Your task to perform on an android device: turn off notifications in google photos Image 0: 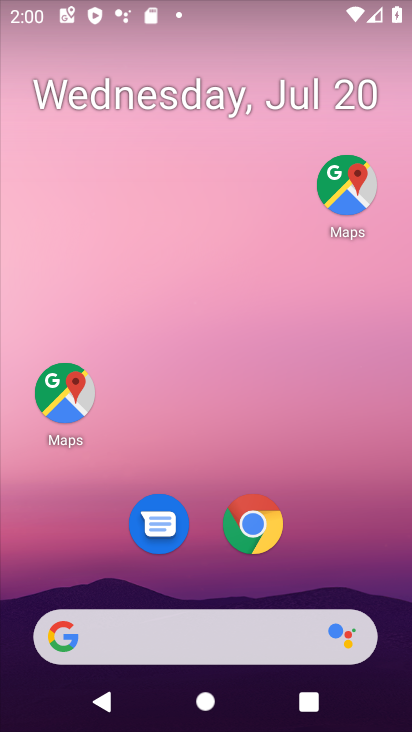
Step 0: drag from (328, 550) to (376, 57)
Your task to perform on an android device: turn off notifications in google photos Image 1: 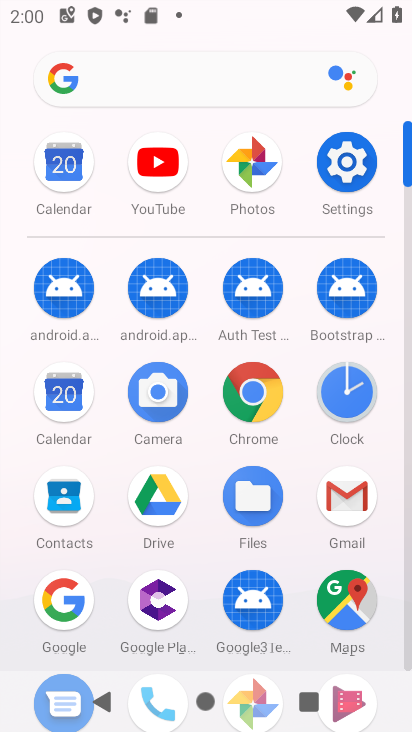
Step 1: click (258, 151)
Your task to perform on an android device: turn off notifications in google photos Image 2: 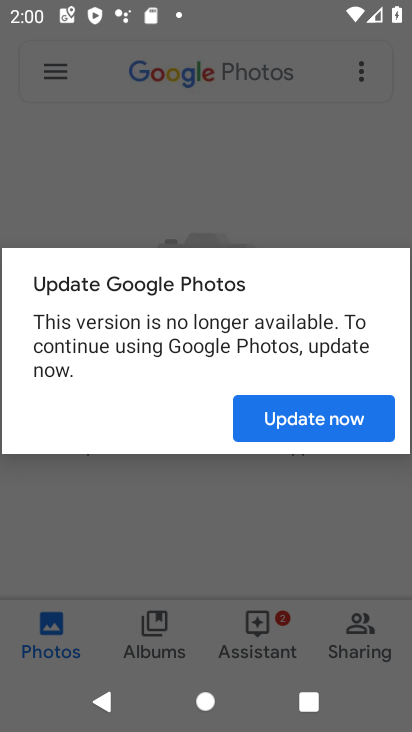
Step 2: click (302, 411)
Your task to perform on an android device: turn off notifications in google photos Image 3: 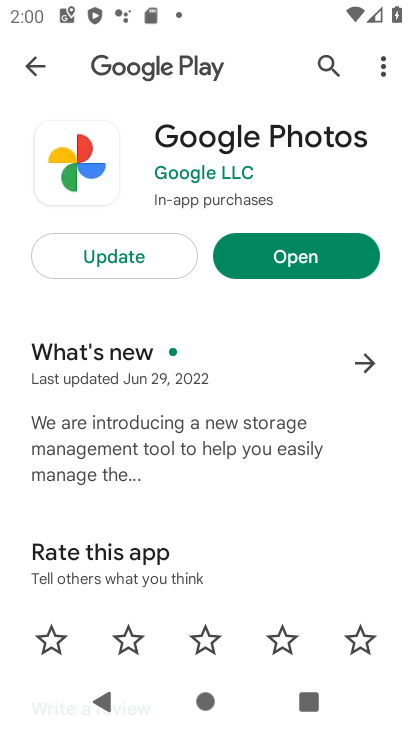
Step 3: click (316, 261)
Your task to perform on an android device: turn off notifications in google photos Image 4: 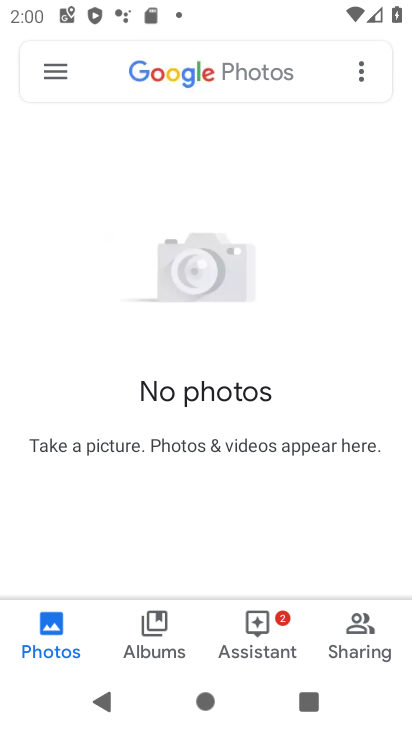
Step 4: click (55, 62)
Your task to perform on an android device: turn off notifications in google photos Image 5: 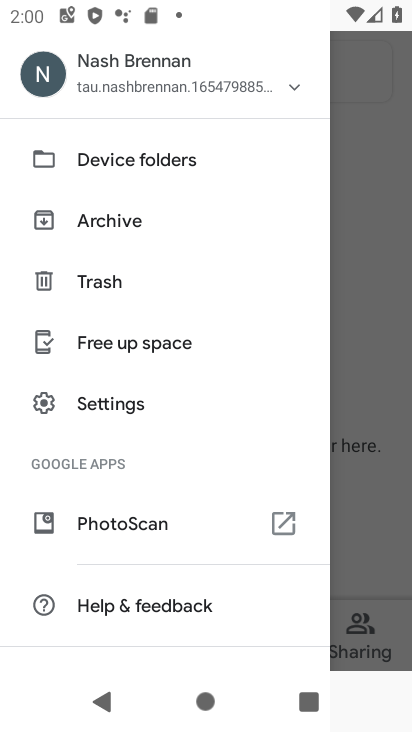
Step 5: click (129, 409)
Your task to perform on an android device: turn off notifications in google photos Image 6: 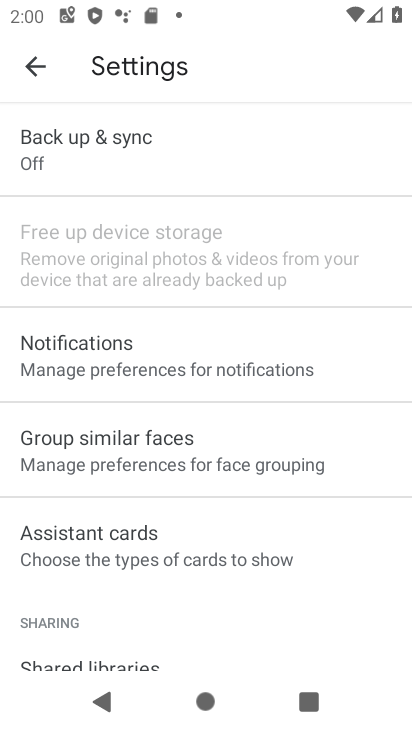
Step 6: click (163, 368)
Your task to perform on an android device: turn off notifications in google photos Image 7: 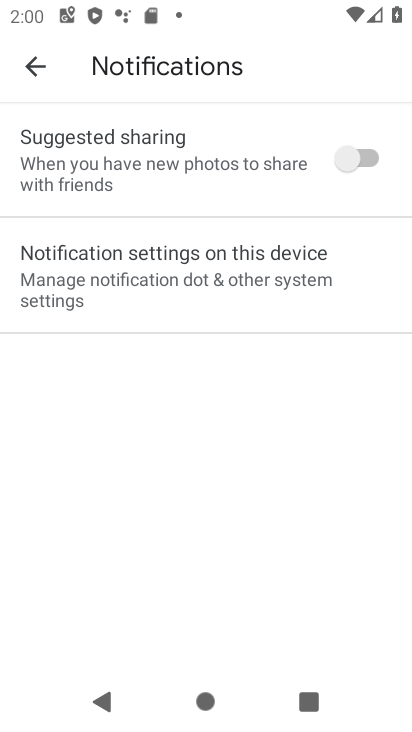
Step 7: click (200, 261)
Your task to perform on an android device: turn off notifications in google photos Image 8: 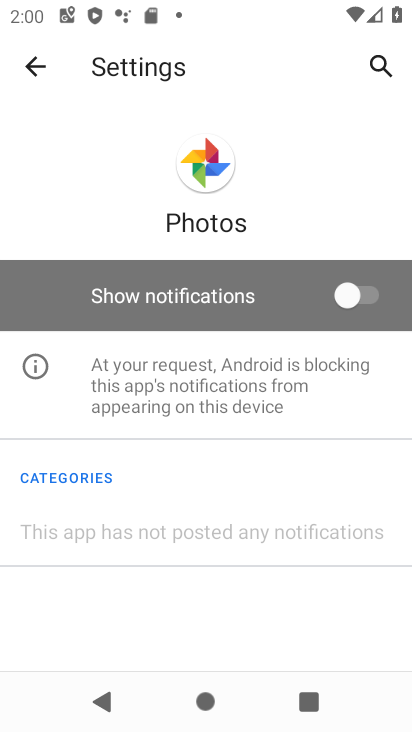
Step 8: task complete